Your task to perform on an android device: empty trash in google photos Image 0: 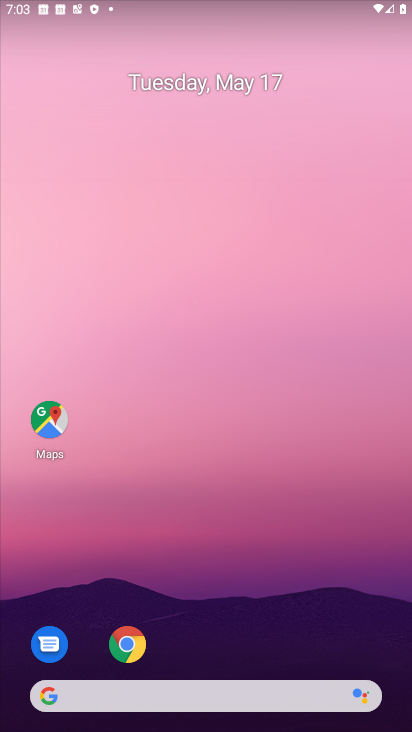
Step 0: drag from (332, 628) to (351, 0)
Your task to perform on an android device: empty trash in google photos Image 1: 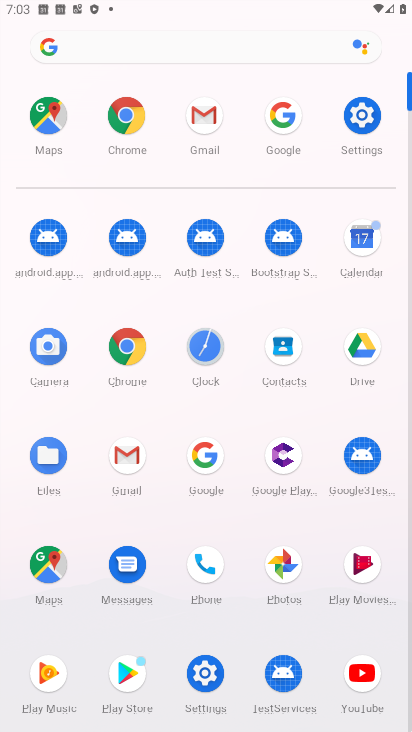
Step 1: click (283, 584)
Your task to perform on an android device: empty trash in google photos Image 2: 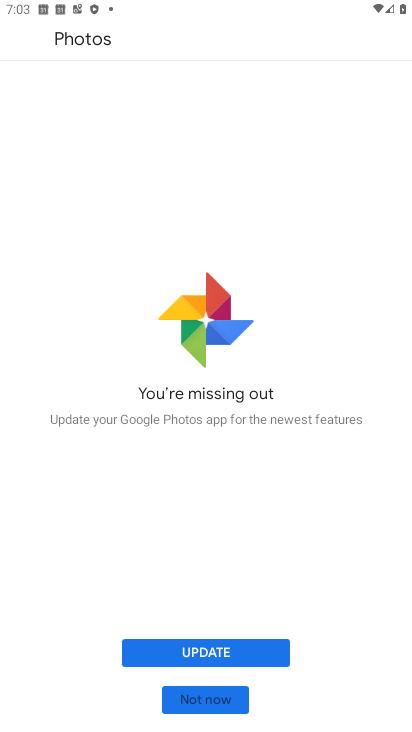
Step 2: click (244, 645)
Your task to perform on an android device: empty trash in google photos Image 3: 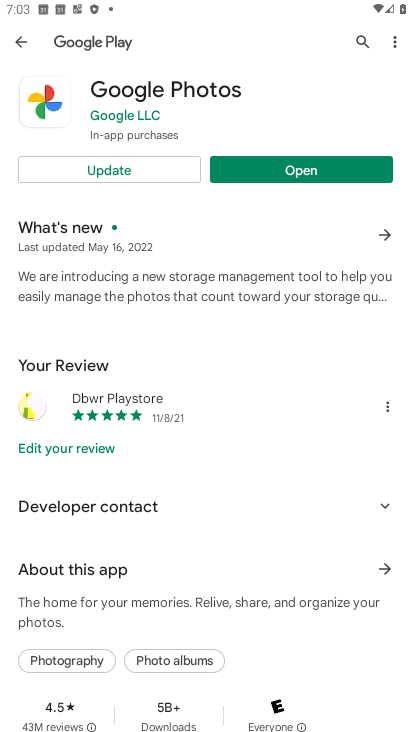
Step 3: click (135, 175)
Your task to perform on an android device: empty trash in google photos Image 4: 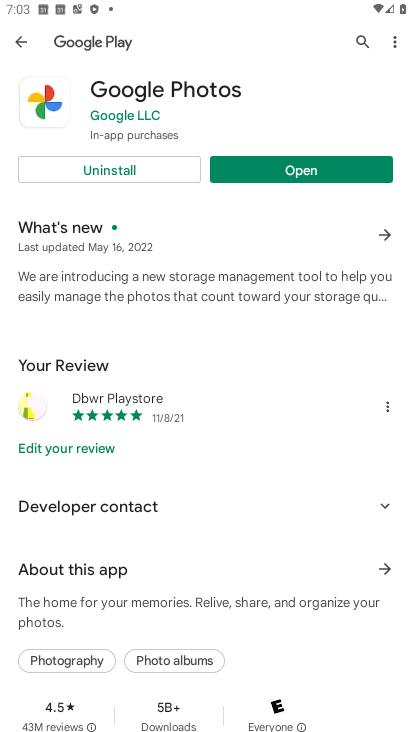
Step 4: click (305, 167)
Your task to perform on an android device: empty trash in google photos Image 5: 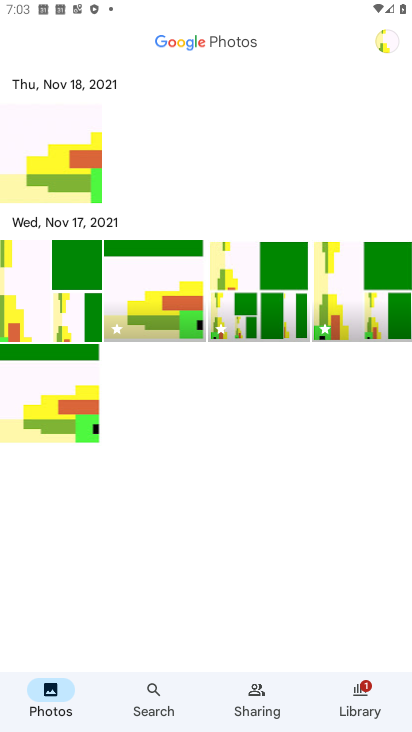
Step 5: click (344, 700)
Your task to perform on an android device: empty trash in google photos Image 6: 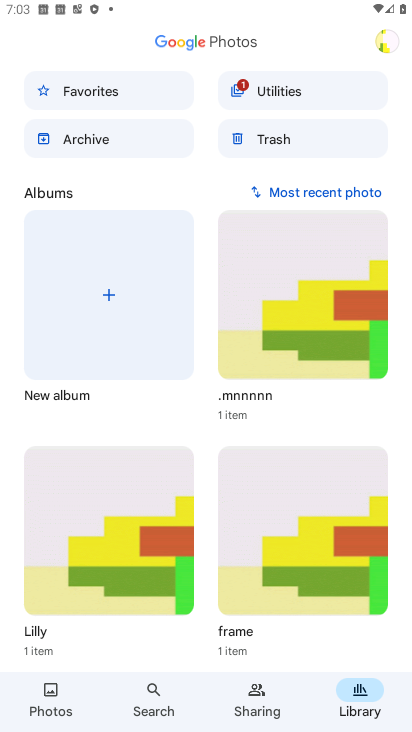
Step 6: click (302, 134)
Your task to perform on an android device: empty trash in google photos Image 7: 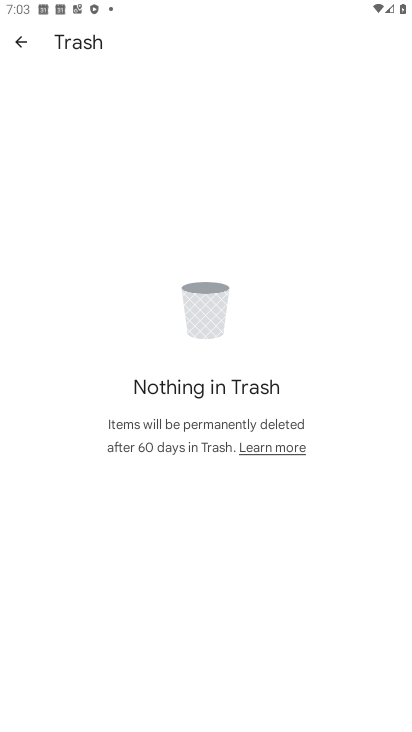
Step 7: task complete